Your task to perform on an android device: open app "DoorDash - Dasher" (install if not already installed) Image 0: 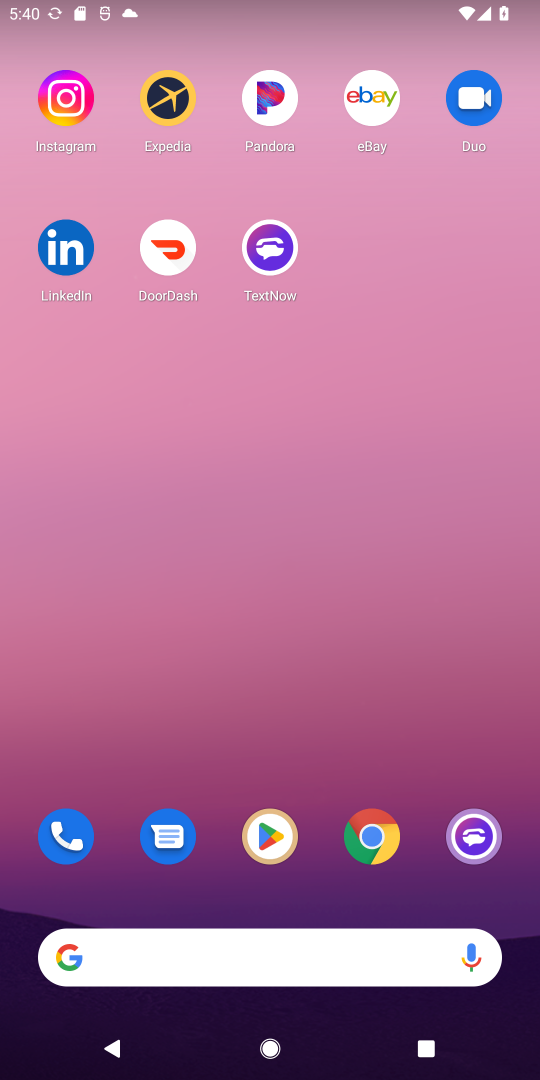
Step 0: click (269, 830)
Your task to perform on an android device: open app "DoorDash - Dasher" (install if not already installed) Image 1: 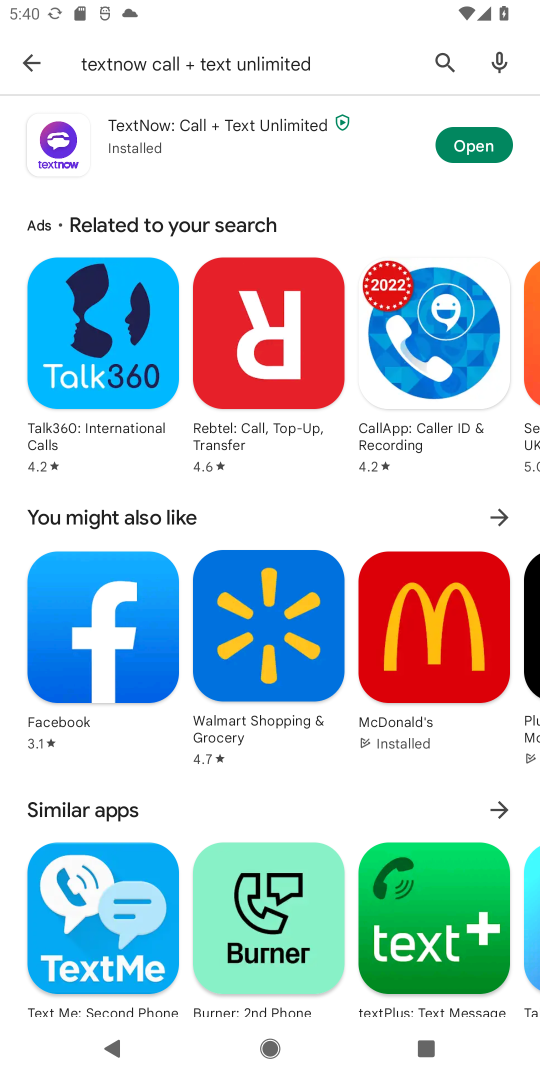
Step 1: click (442, 56)
Your task to perform on an android device: open app "DoorDash - Dasher" (install if not already installed) Image 2: 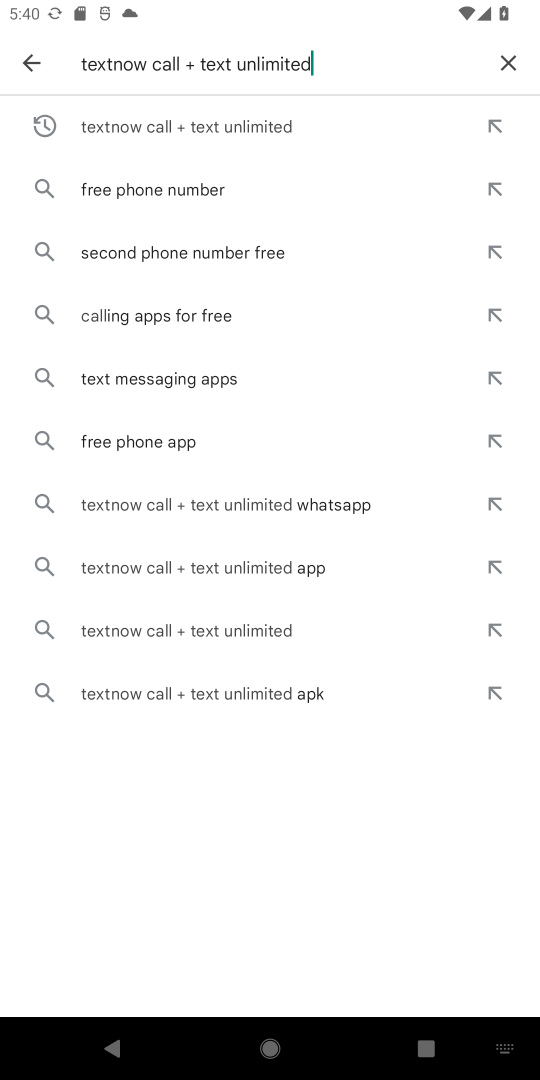
Step 2: click (508, 63)
Your task to perform on an android device: open app "DoorDash - Dasher" (install if not already installed) Image 3: 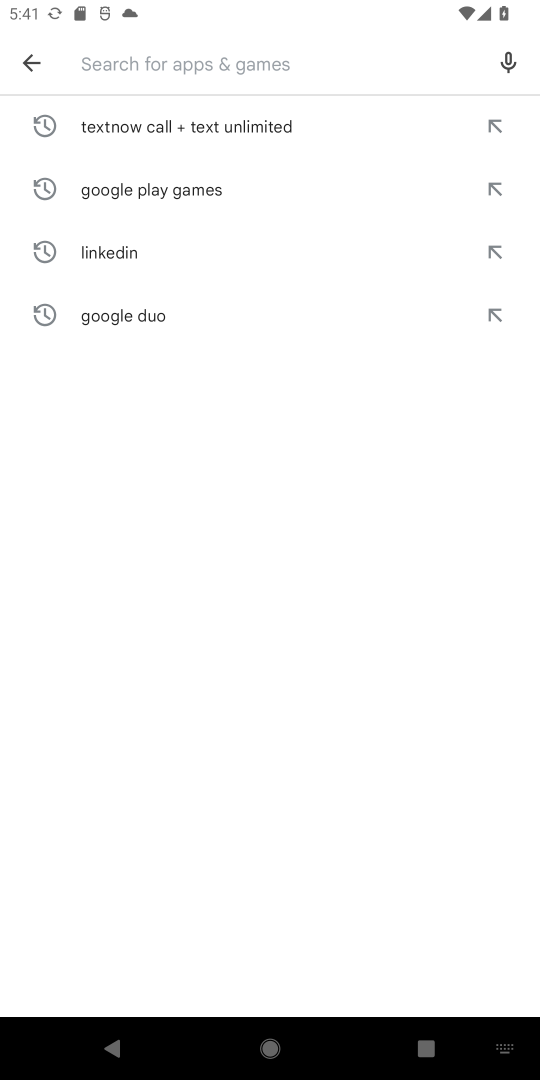
Step 3: type "DoorDash - Dasher"
Your task to perform on an android device: open app "DoorDash - Dasher" (install if not already installed) Image 4: 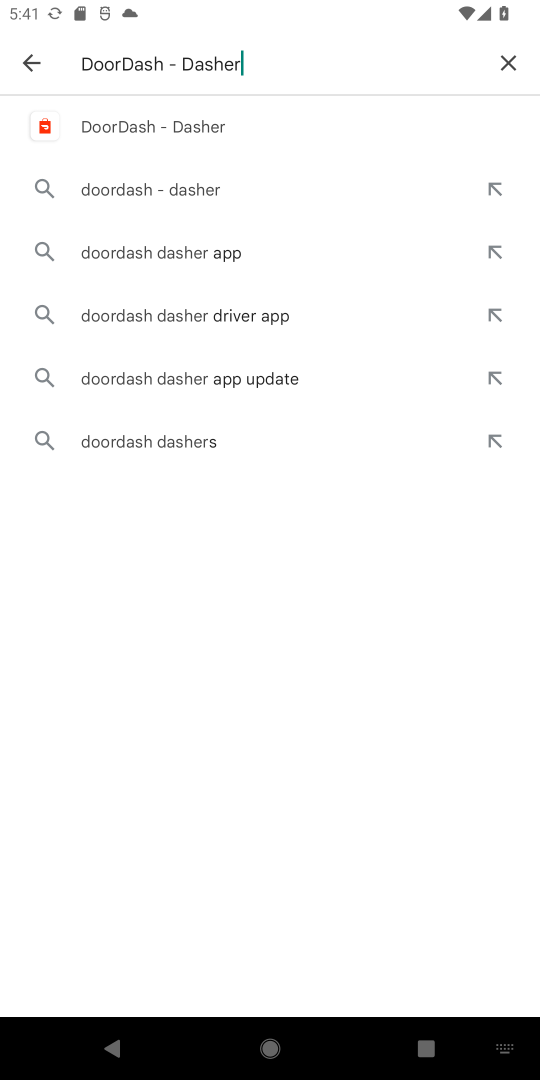
Step 4: click (169, 127)
Your task to perform on an android device: open app "DoorDash - Dasher" (install if not already installed) Image 5: 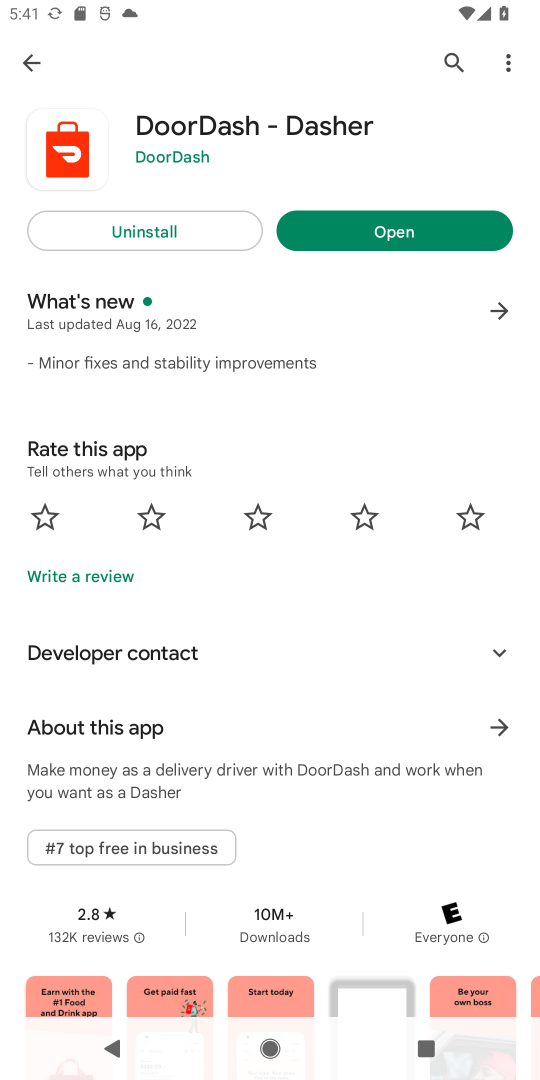
Step 5: click (402, 230)
Your task to perform on an android device: open app "DoorDash - Dasher" (install if not already installed) Image 6: 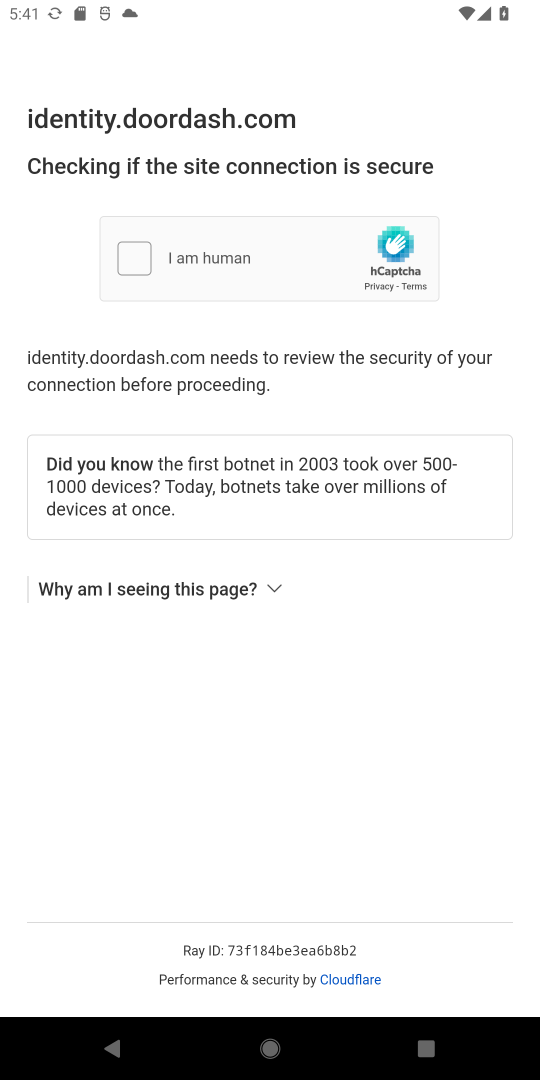
Step 6: task complete